Your task to perform on an android device: Turn off the flashlight Image 0: 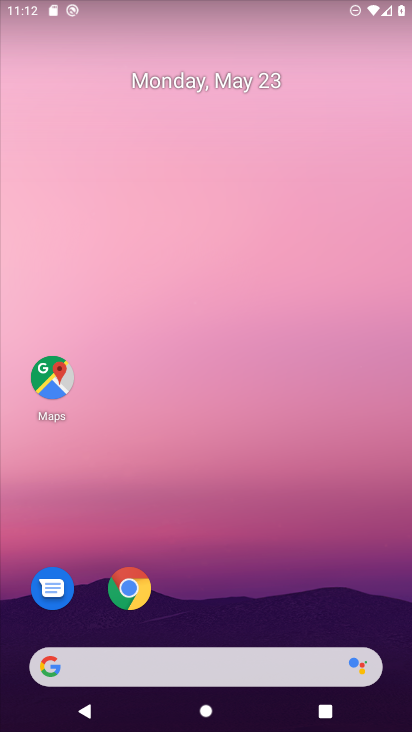
Step 0: drag from (298, 586) to (312, 19)
Your task to perform on an android device: Turn off the flashlight Image 1: 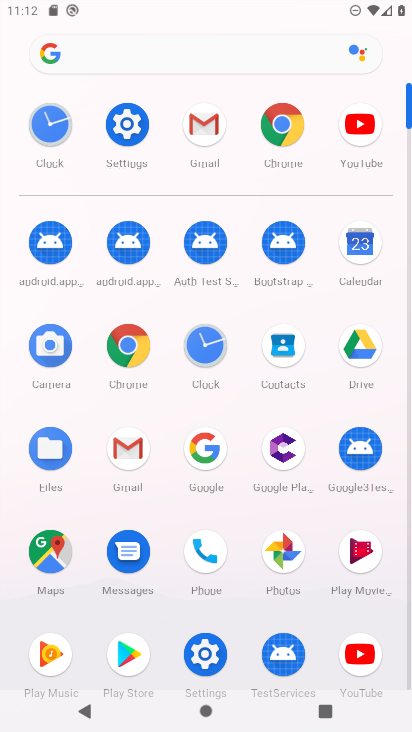
Step 1: click (128, 127)
Your task to perform on an android device: Turn off the flashlight Image 2: 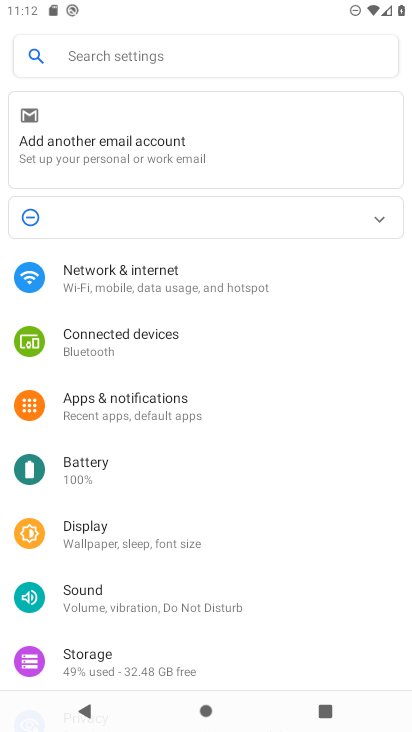
Step 2: click (123, 535)
Your task to perform on an android device: Turn off the flashlight Image 3: 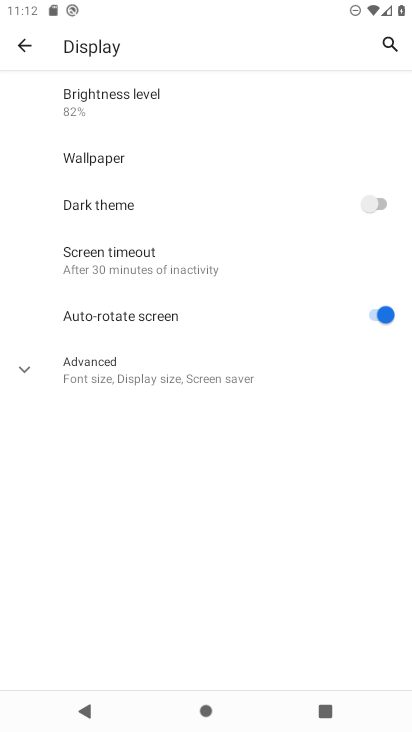
Step 3: task complete